Your task to perform on an android device: Go to location settings Image 0: 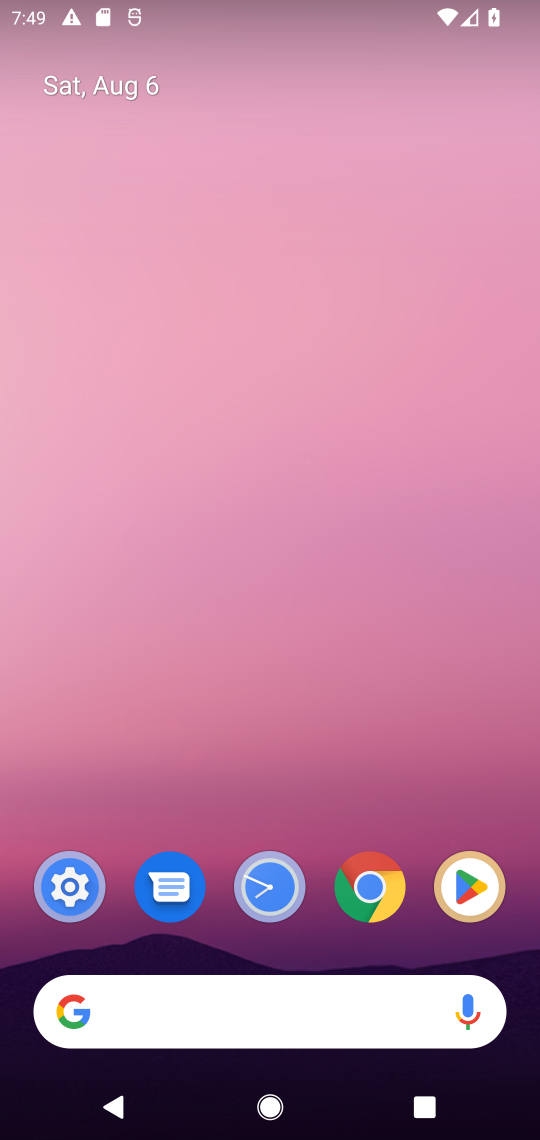
Step 0: click (61, 878)
Your task to perform on an android device: Go to location settings Image 1: 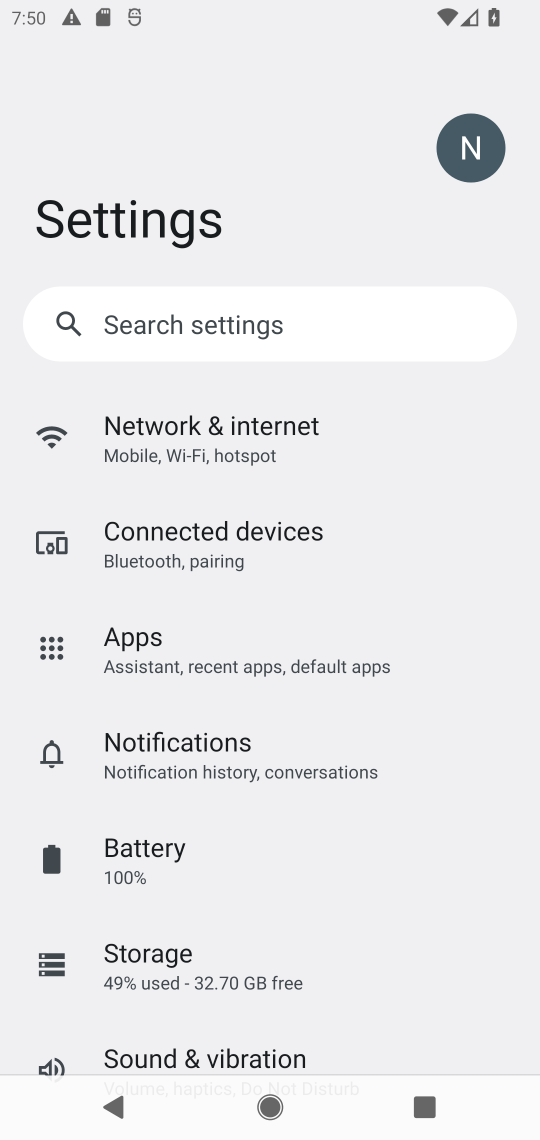
Step 1: drag from (164, 1016) to (137, 538)
Your task to perform on an android device: Go to location settings Image 2: 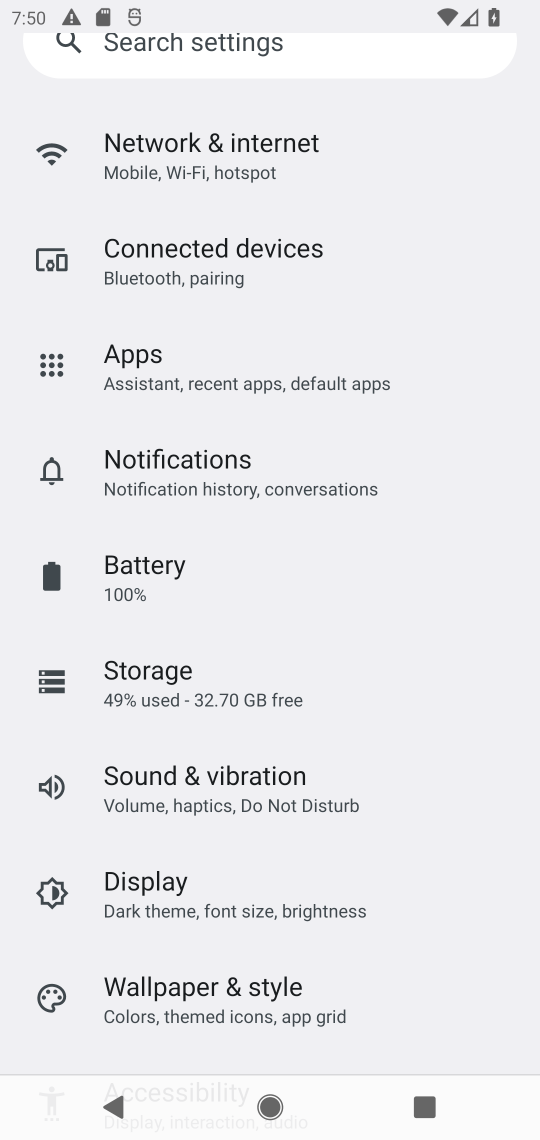
Step 2: drag from (191, 926) to (130, 347)
Your task to perform on an android device: Go to location settings Image 3: 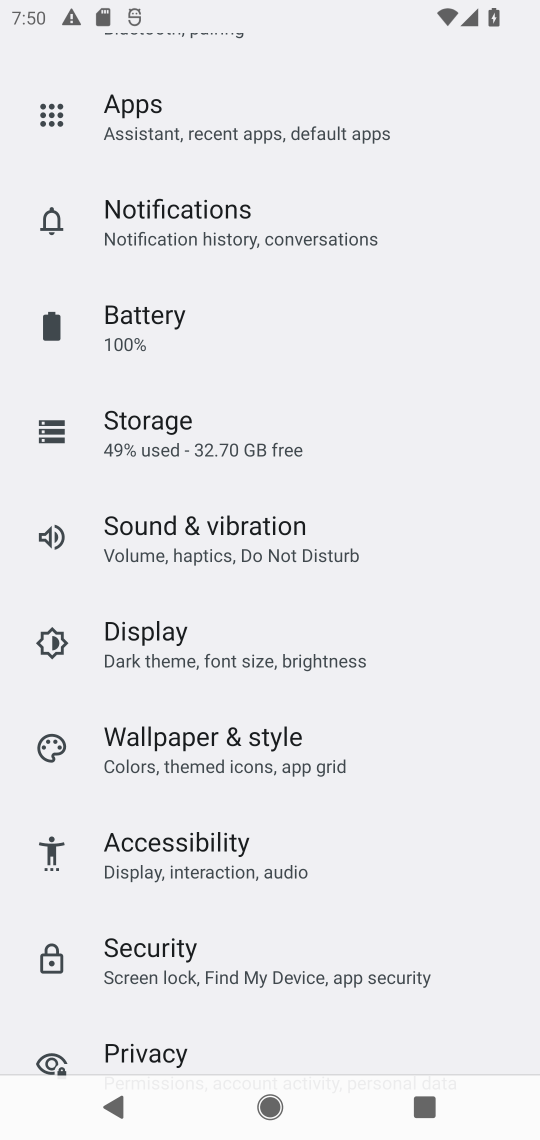
Step 3: drag from (169, 801) to (122, 430)
Your task to perform on an android device: Go to location settings Image 4: 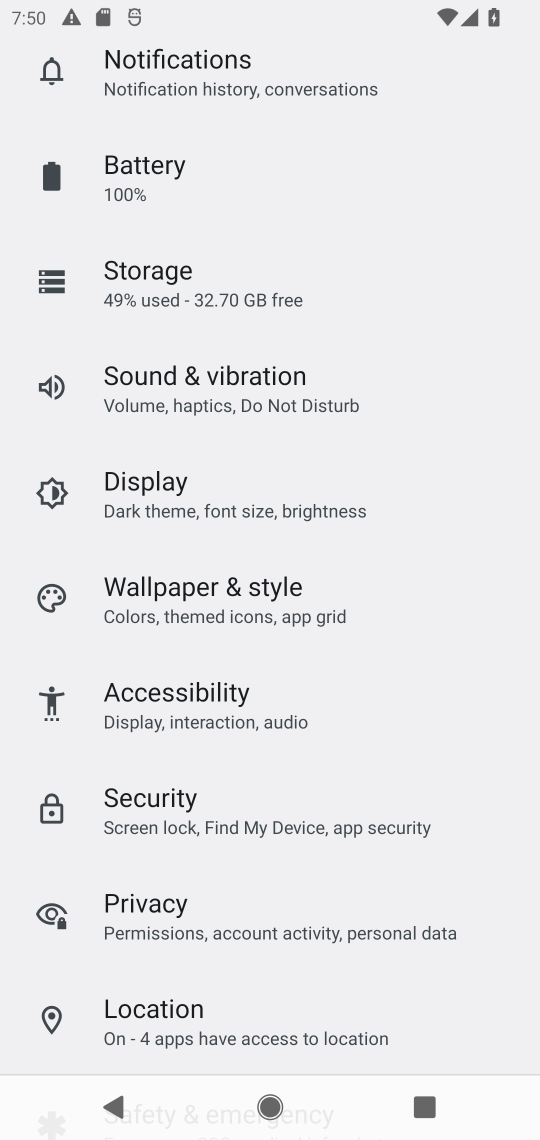
Step 4: click (184, 1001)
Your task to perform on an android device: Go to location settings Image 5: 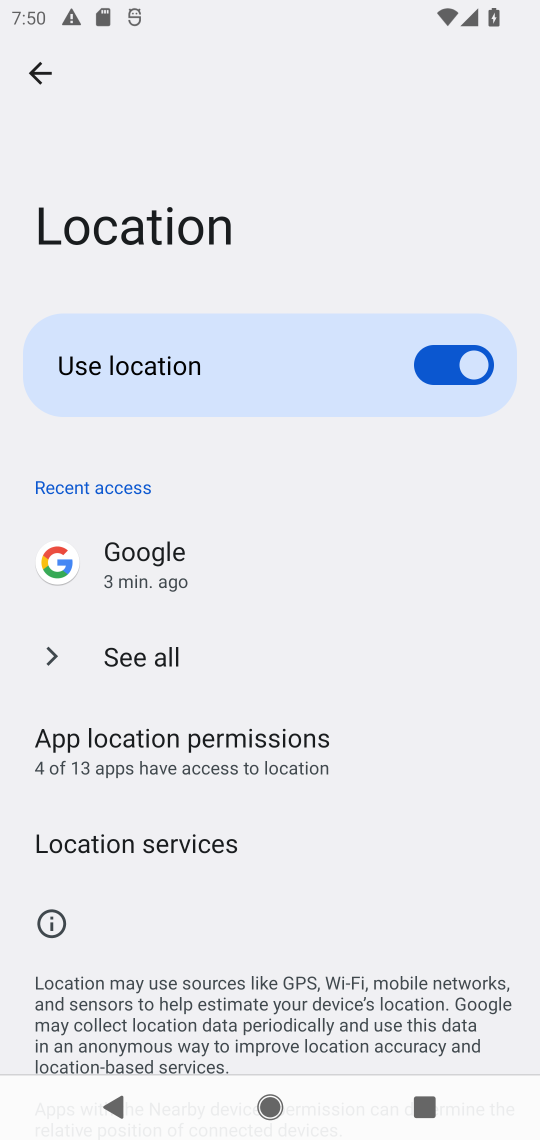
Step 5: task complete